Your task to perform on an android device: turn off location Image 0: 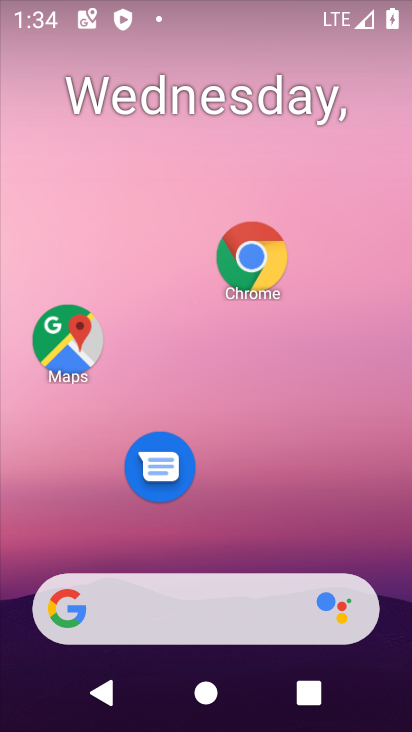
Step 0: click (71, 332)
Your task to perform on an android device: turn off location Image 1: 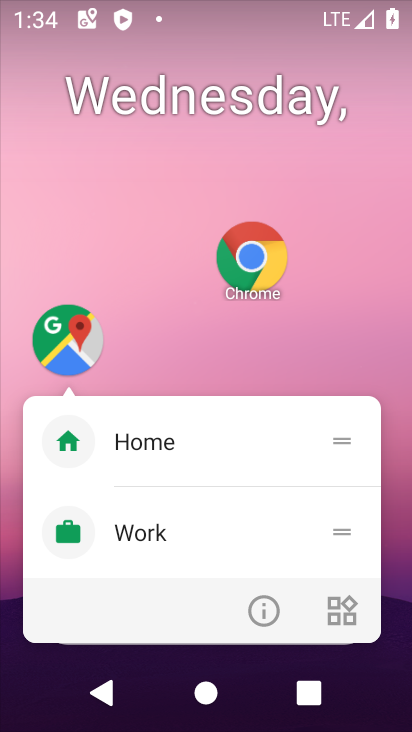
Step 1: click (167, 330)
Your task to perform on an android device: turn off location Image 2: 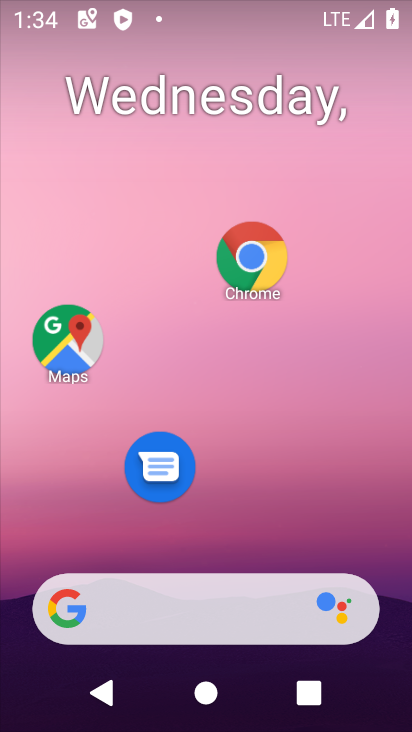
Step 2: drag from (266, 544) to (320, 143)
Your task to perform on an android device: turn off location Image 3: 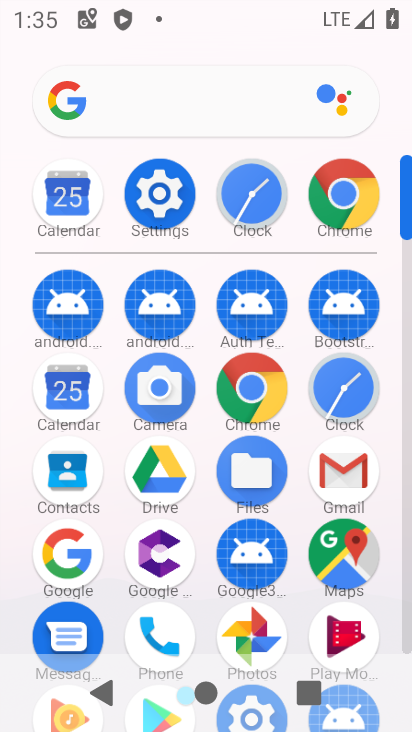
Step 3: click (158, 205)
Your task to perform on an android device: turn off location Image 4: 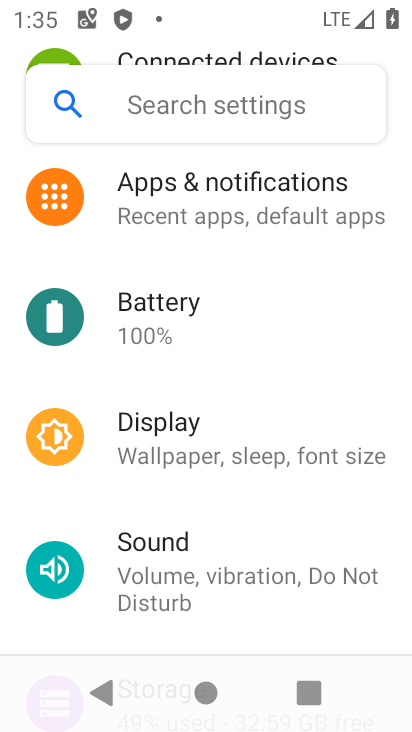
Step 4: drag from (268, 597) to (277, 223)
Your task to perform on an android device: turn off location Image 5: 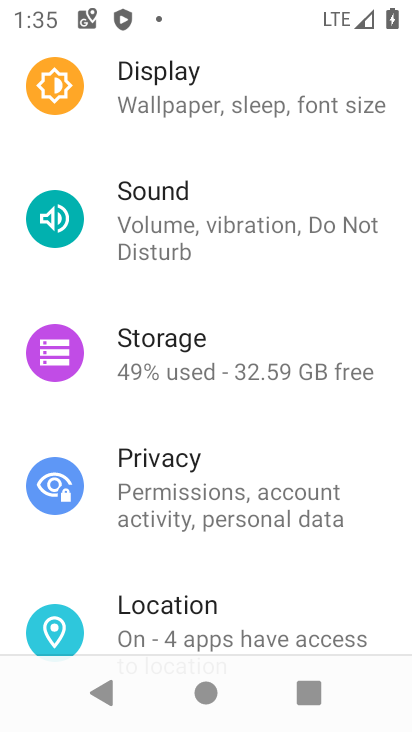
Step 5: click (169, 610)
Your task to perform on an android device: turn off location Image 6: 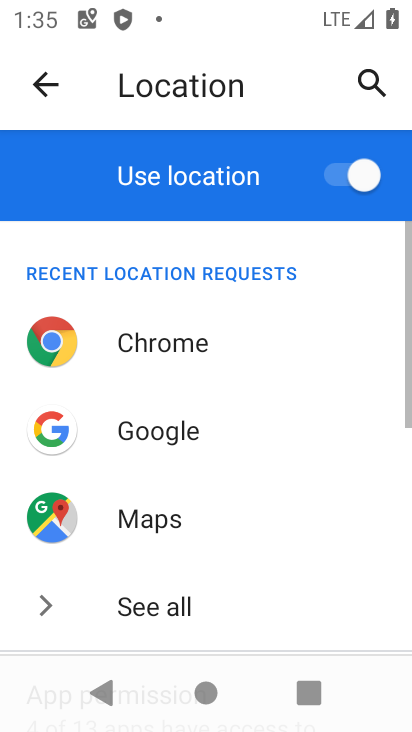
Step 6: click (343, 169)
Your task to perform on an android device: turn off location Image 7: 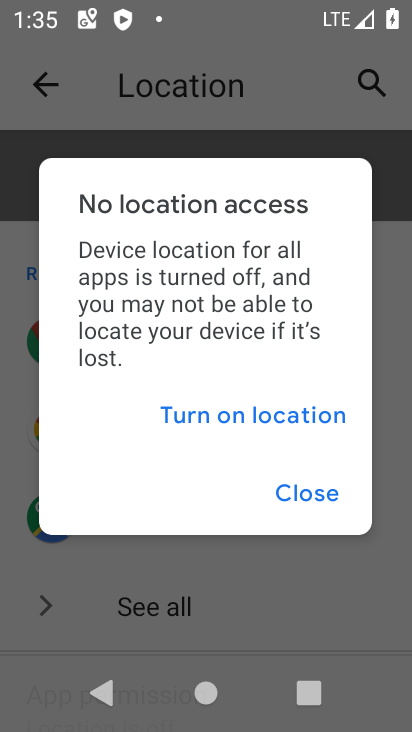
Step 7: click (277, 414)
Your task to perform on an android device: turn off location Image 8: 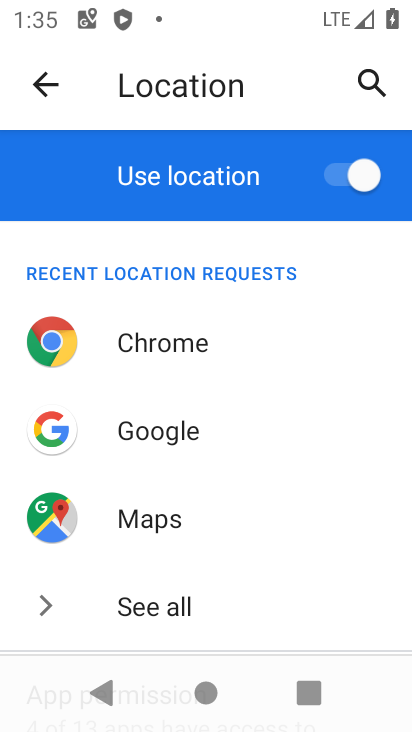
Step 8: click (334, 164)
Your task to perform on an android device: turn off location Image 9: 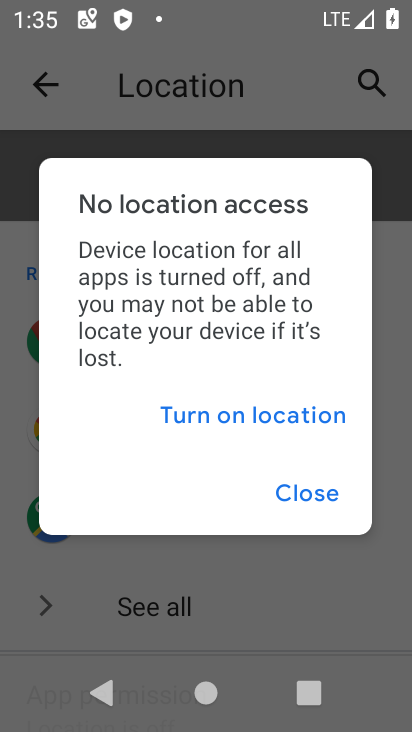
Step 9: click (301, 494)
Your task to perform on an android device: turn off location Image 10: 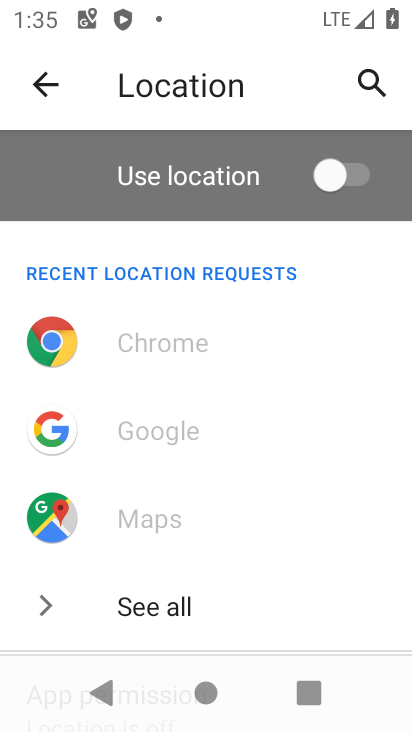
Step 10: task complete